Your task to perform on an android device: open app "Expedia: Hotels, Flights & Car" Image 0: 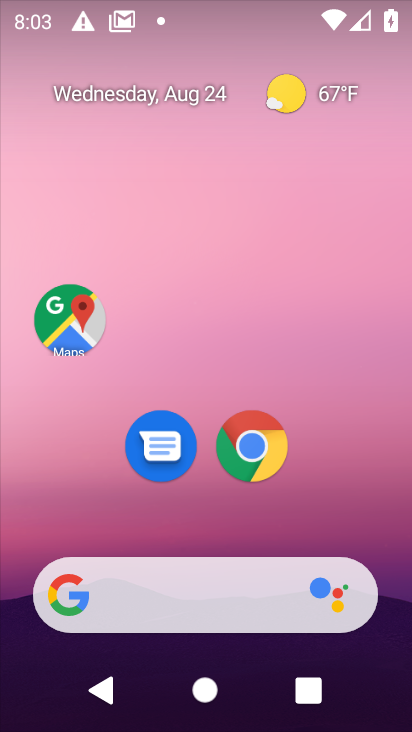
Step 0: drag from (213, 530) to (236, 81)
Your task to perform on an android device: open app "Expedia: Hotels, Flights & Car" Image 1: 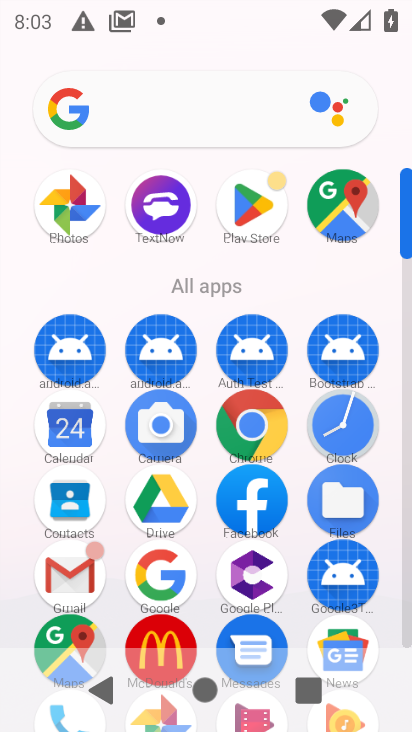
Step 1: click (244, 198)
Your task to perform on an android device: open app "Expedia: Hotels, Flights & Car" Image 2: 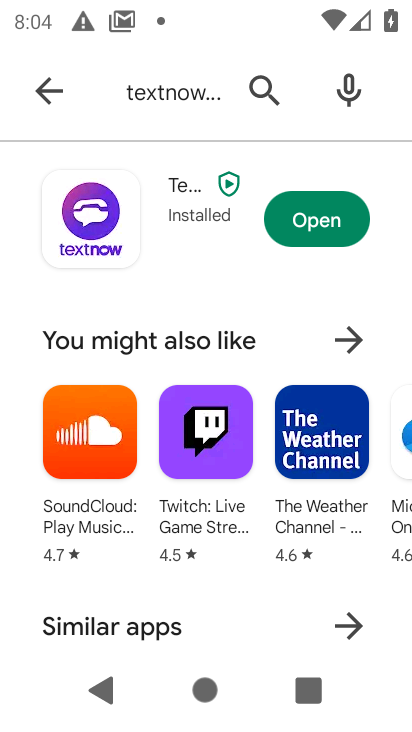
Step 2: click (257, 75)
Your task to perform on an android device: open app "Expedia: Hotels, Flights & Car" Image 3: 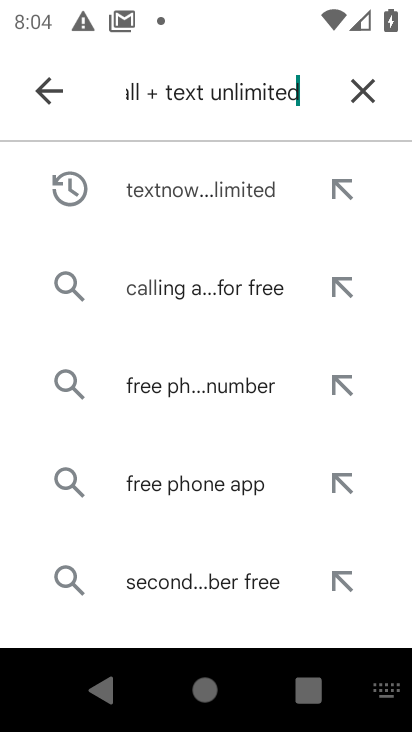
Step 3: click (364, 99)
Your task to perform on an android device: open app "Expedia: Hotels, Flights & Car" Image 4: 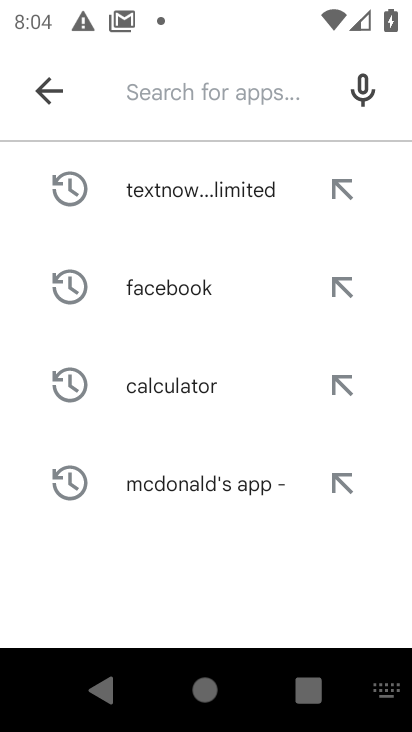
Step 4: type "Expedia: Hotels, Flights & Car"
Your task to perform on an android device: open app "Expedia: Hotels, Flights & Car" Image 5: 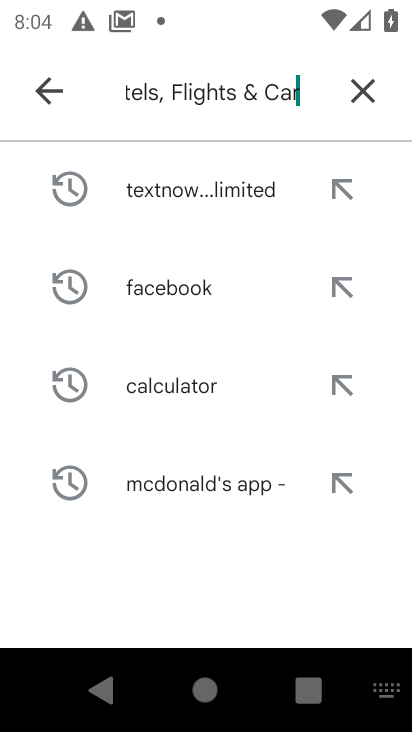
Step 5: type ""
Your task to perform on an android device: open app "Expedia: Hotels, Flights & Car" Image 6: 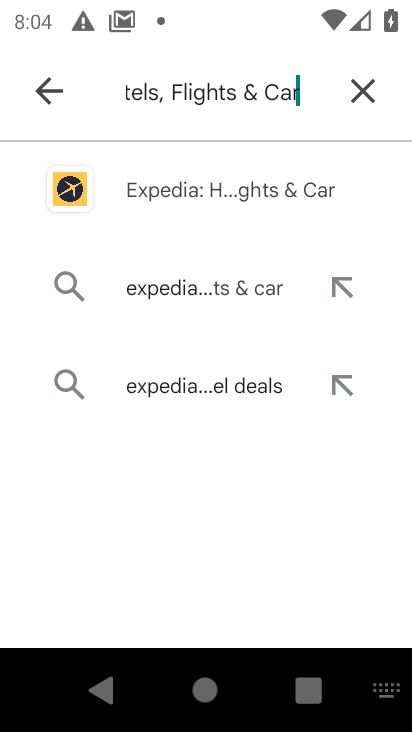
Step 6: click (145, 192)
Your task to perform on an android device: open app "Expedia: Hotels, Flights & Car" Image 7: 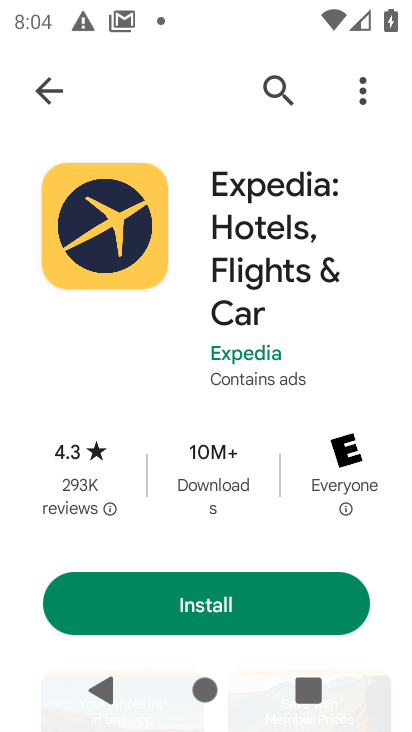
Step 7: task complete